Your task to perform on an android device: Clear the shopping cart on bestbuy. Add "razer blackwidow" to the cart on bestbuy Image 0: 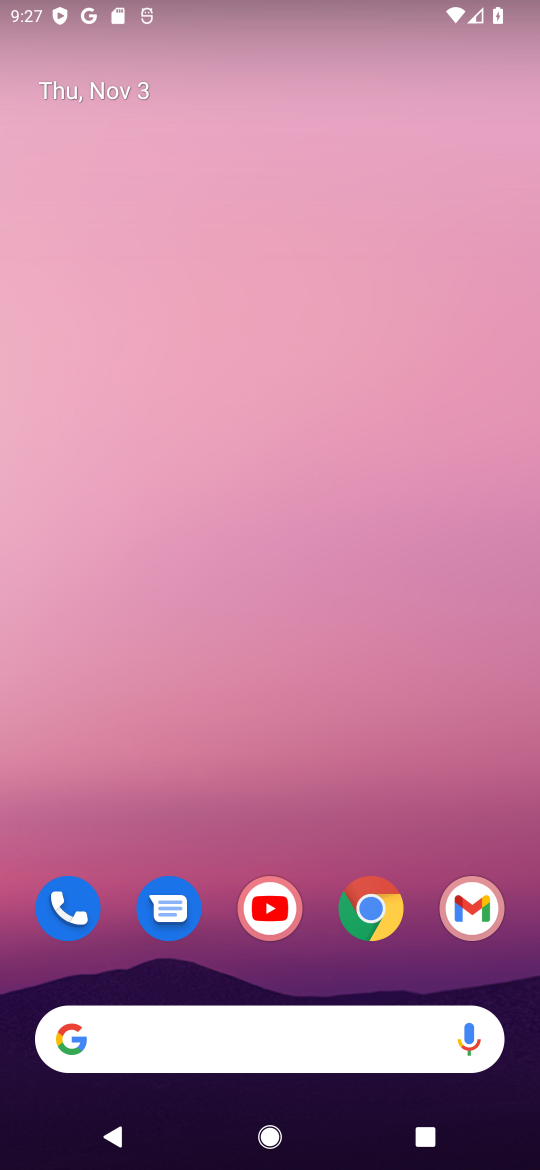
Step 0: click (387, 918)
Your task to perform on an android device: Clear the shopping cart on bestbuy. Add "razer blackwidow" to the cart on bestbuy Image 1: 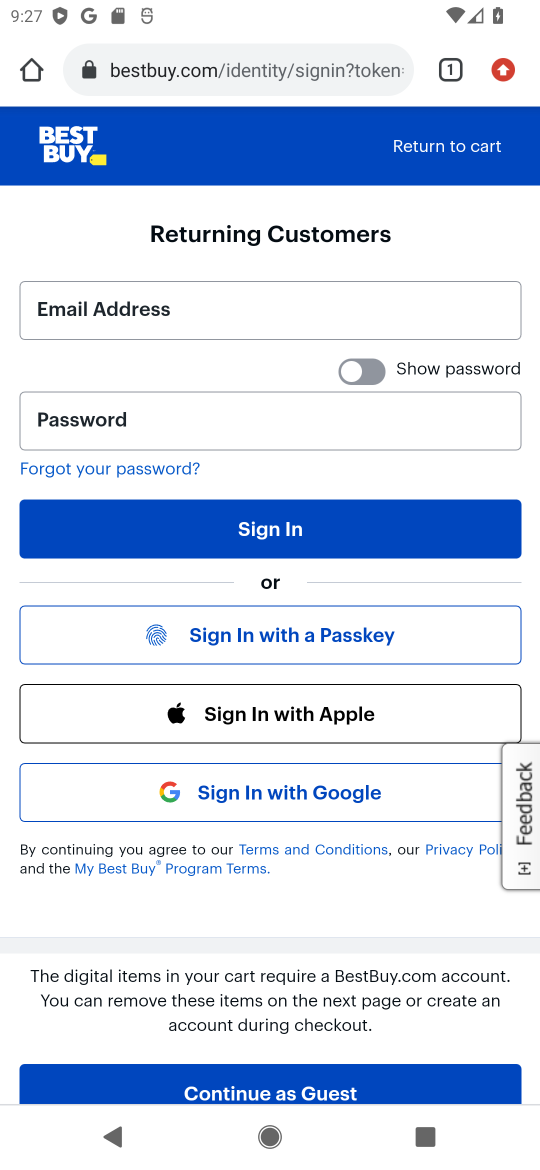
Step 1: drag from (365, 254) to (402, 978)
Your task to perform on an android device: Clear the shopping cart on bestbuy. Add "razer blackwidow" to the cart on bestbuy Image 2: 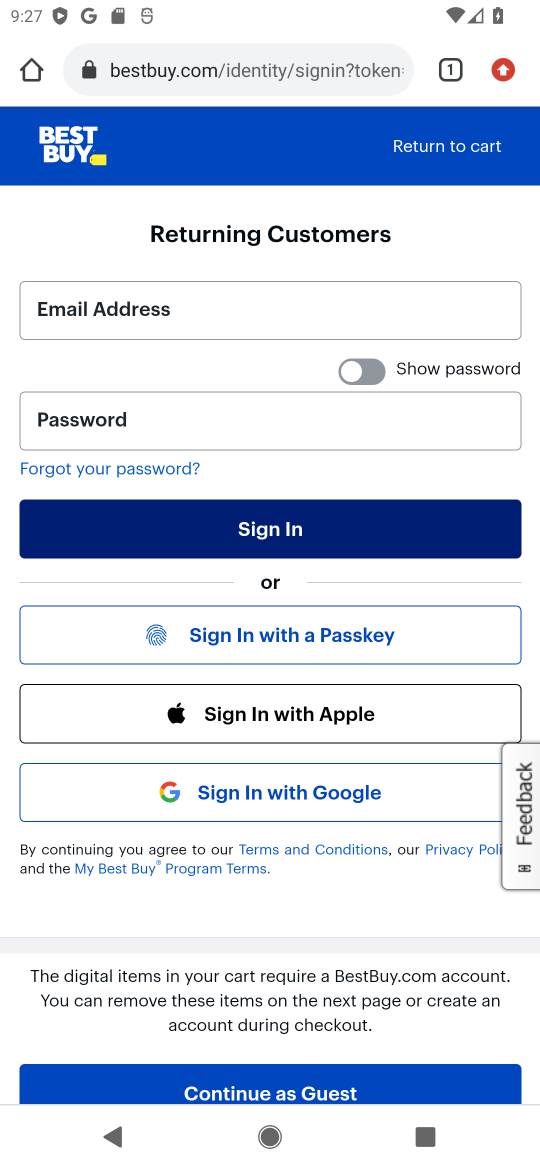
Step 2: drag from (314, 210) to (322, 906)
Your task to perform on an android device: Clear the shopping cart on bestbuy. Add "razer blackwidow" to the cart on bestbuy Image 3: 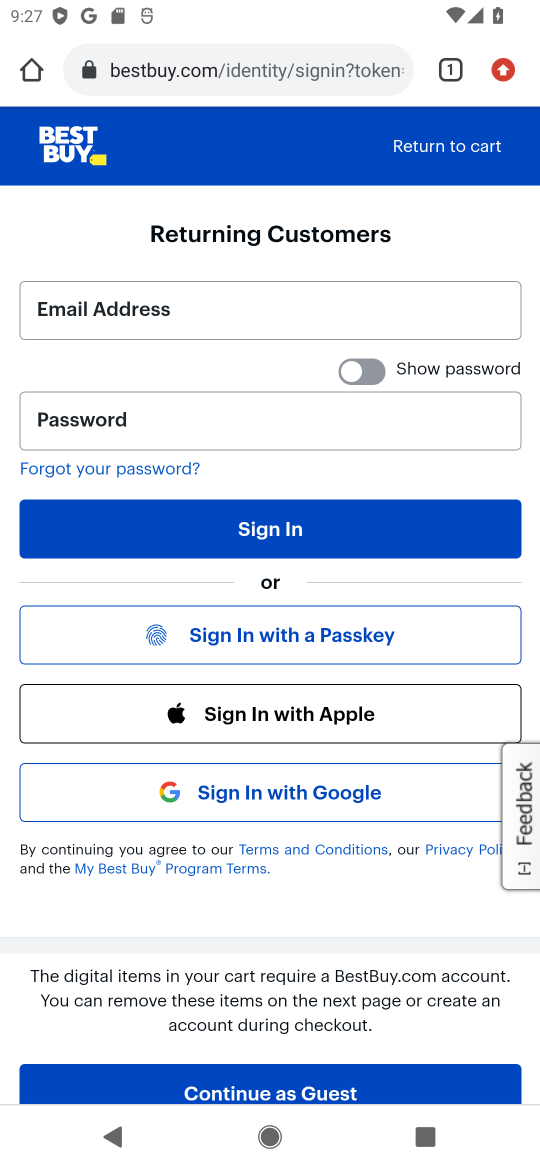
Step 3: press back button
Your task to perform on an android device: Clear the shopping cart on bestbuy. Add "razer blackwidow" to the cart on bestbuy Image 4: 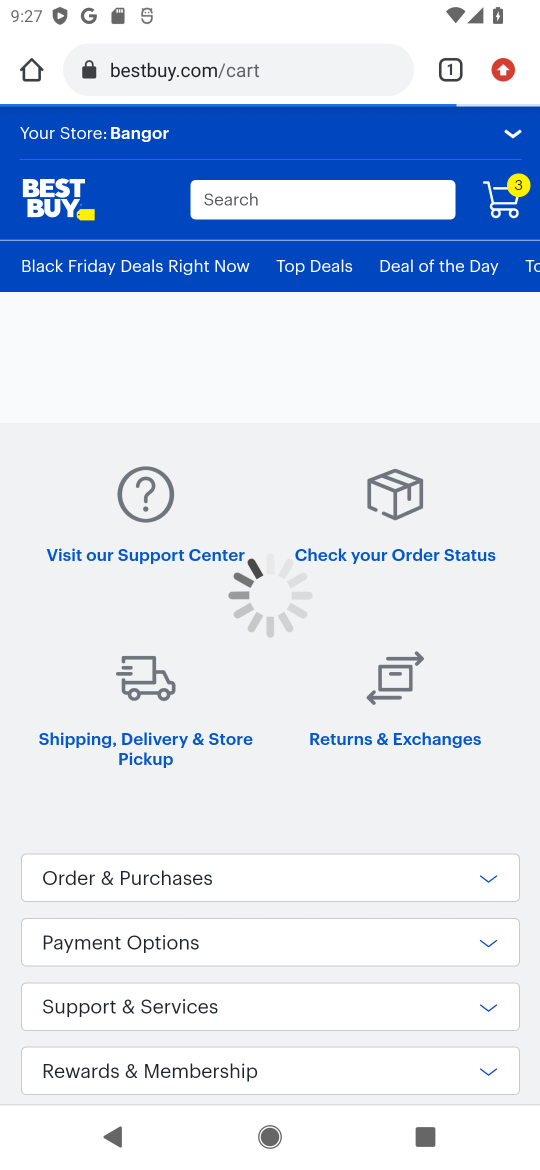
Step 4: click (343, 188)
Your task to perform on an android device: Clear the shopping cart on bestbuy. Add "razer blackwidow" to the cart on bestbuy Image 5: 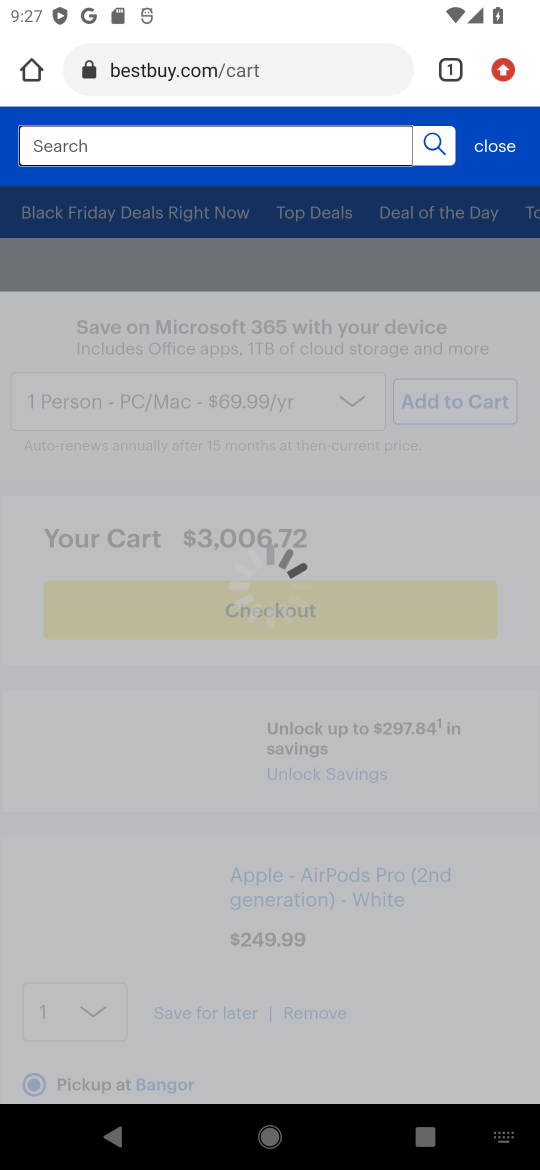
Step 5: click (517, 150)
Your task to perform on an android device: Clear the shopping cart on bestbuy. Add "razer blackwidow" to the cart on bestbuy Image 6: 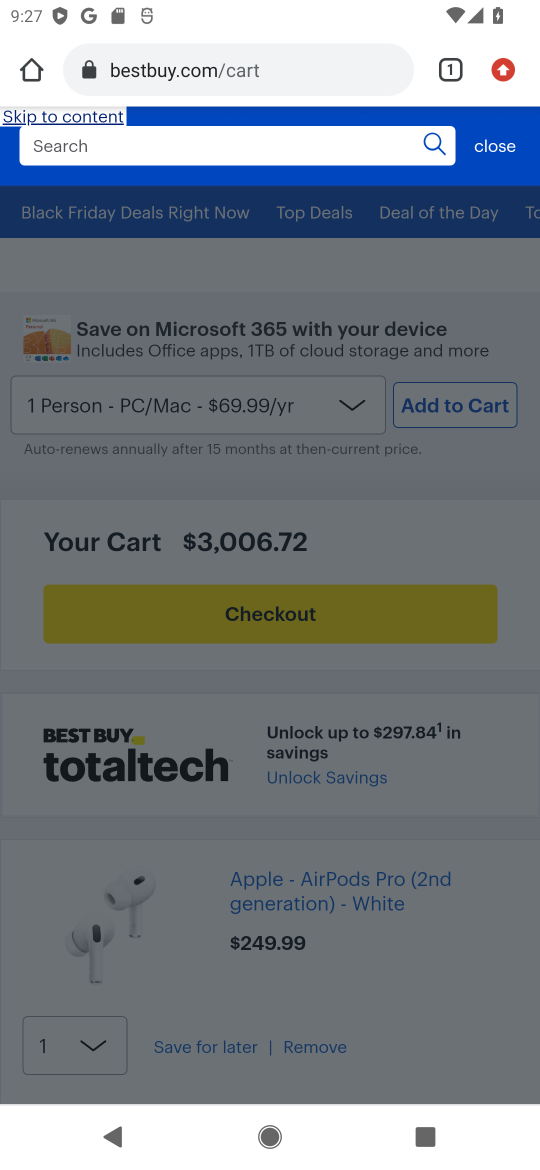
Step 6: click (492, 152)
Your task to perform on an android device: Clear the shopping cart on bestbuy. Add "razer blackwidow" to the cart on bestbuy Image 7: 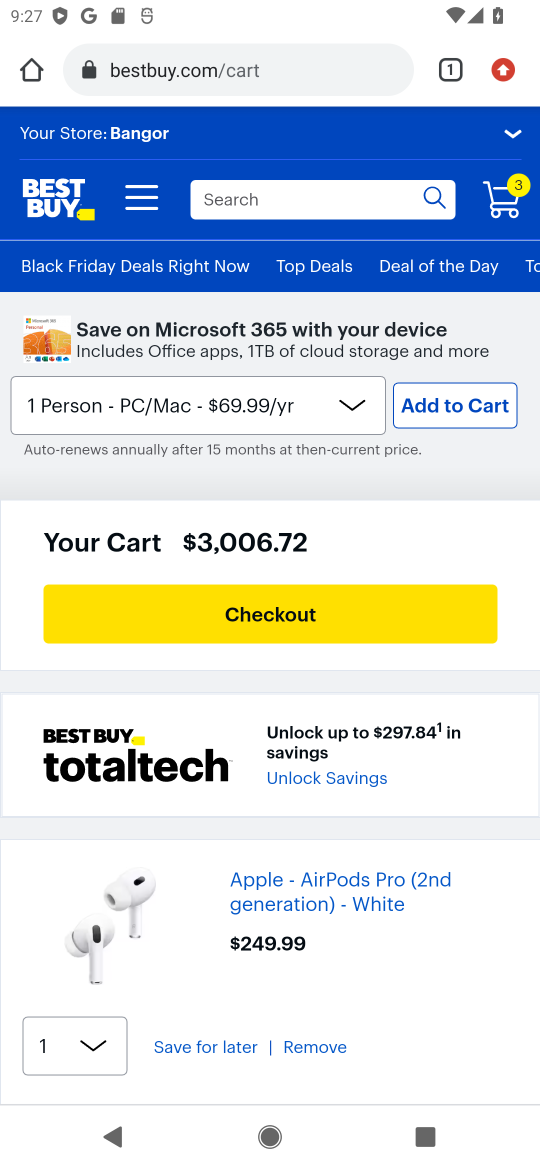
Step 7: click (506, 194)
Your task to perform on an android device: Clear the shopping cart on bestbuy. Add "razer blackwidow" to the cart on bestbuy Image 8: 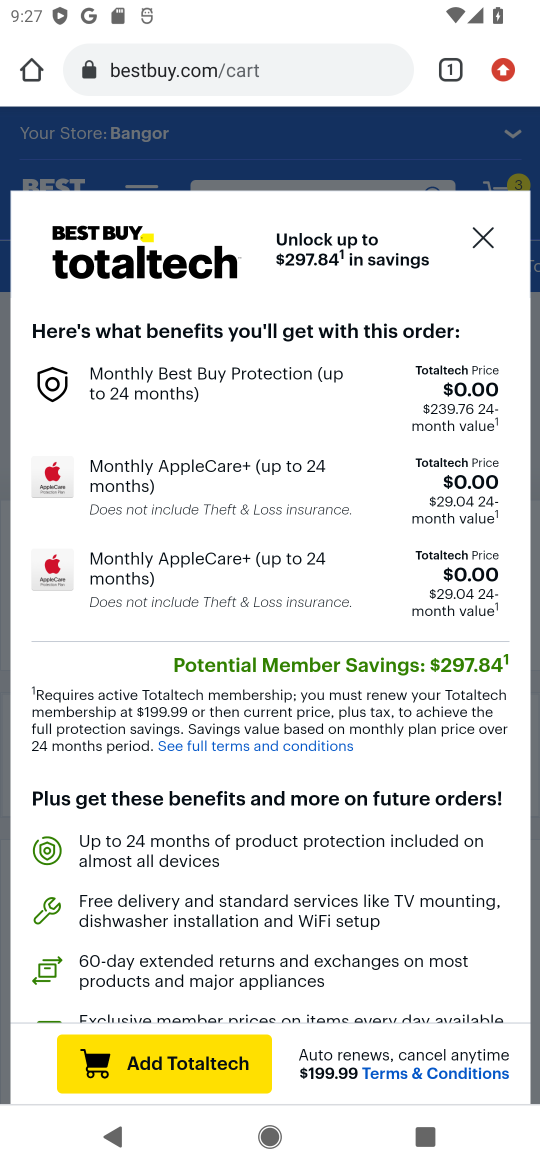
Step 8: click (486, 237)
Your task to perform on an android device: Clear the shopping cart on bestbuy. Add "razer blackwidow" to the cart on bestbuy Image 9: 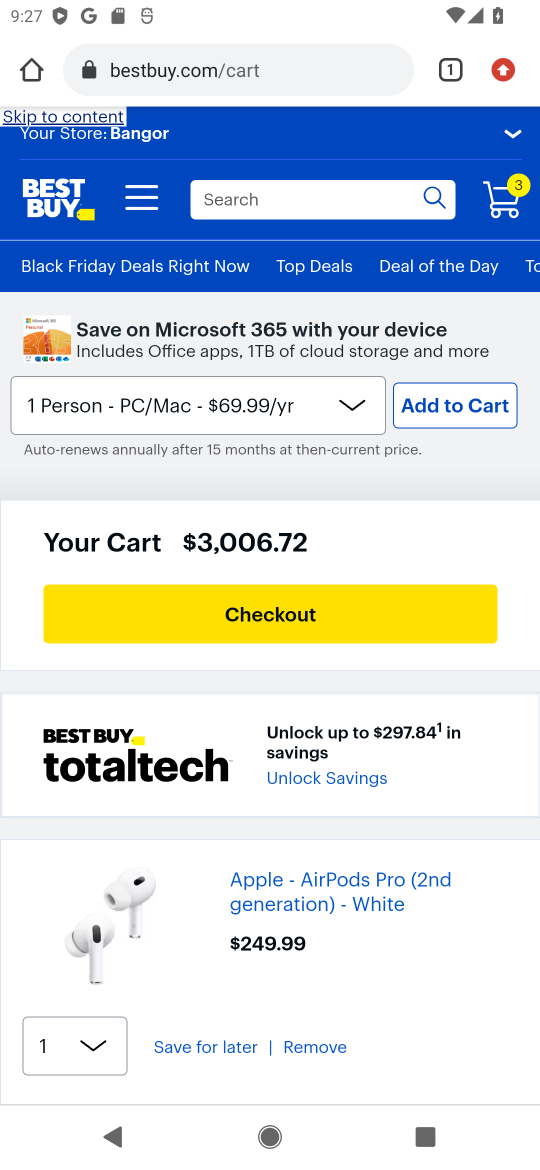
Step 9: drag from (426, 828) to (350, 302)
Your task to perform on an android device: Clear the shopping cart on bestbuy. Add "razer blackwidow" to the cart on bestbuy Image 10: 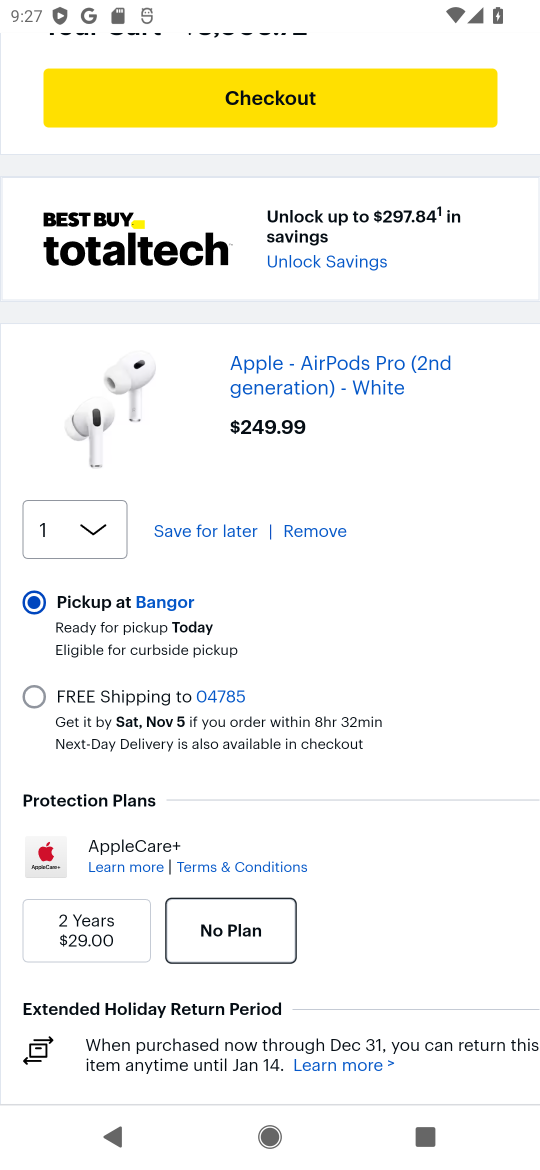
Step 10: click (295, 526)
Your task to perform on an android device: Clear the shopping cart on bestbuy. Add "razer blackwidow" to the cart on bestbuy Image 11: 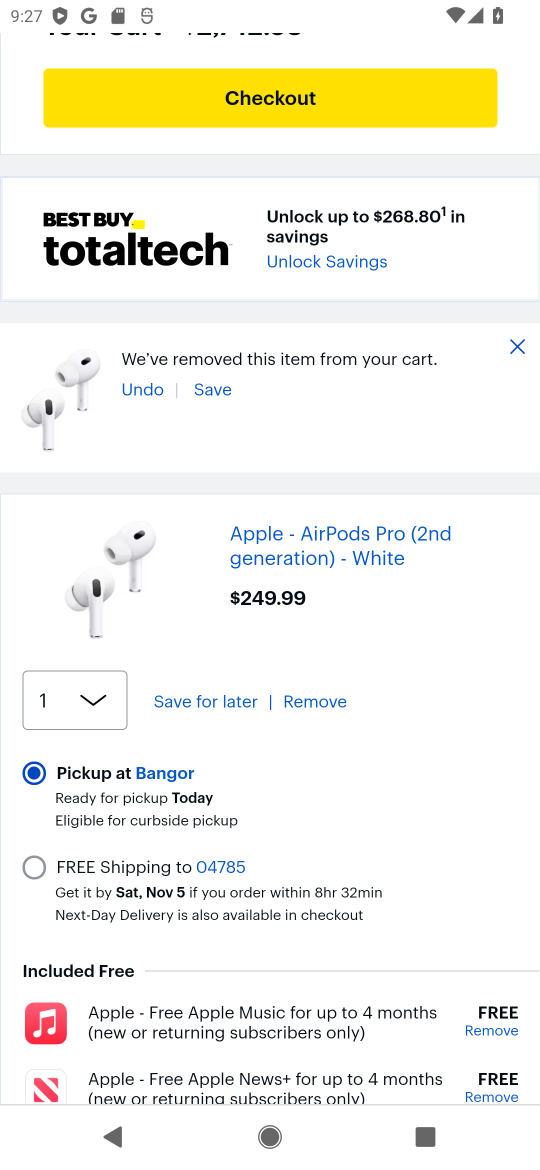
Step 11: click (326, 698)
Your task to perform on an android device: Clear the shopping cart on bestbuy. Add "razer blackwidow" to the cart on bestbuy Image 12: 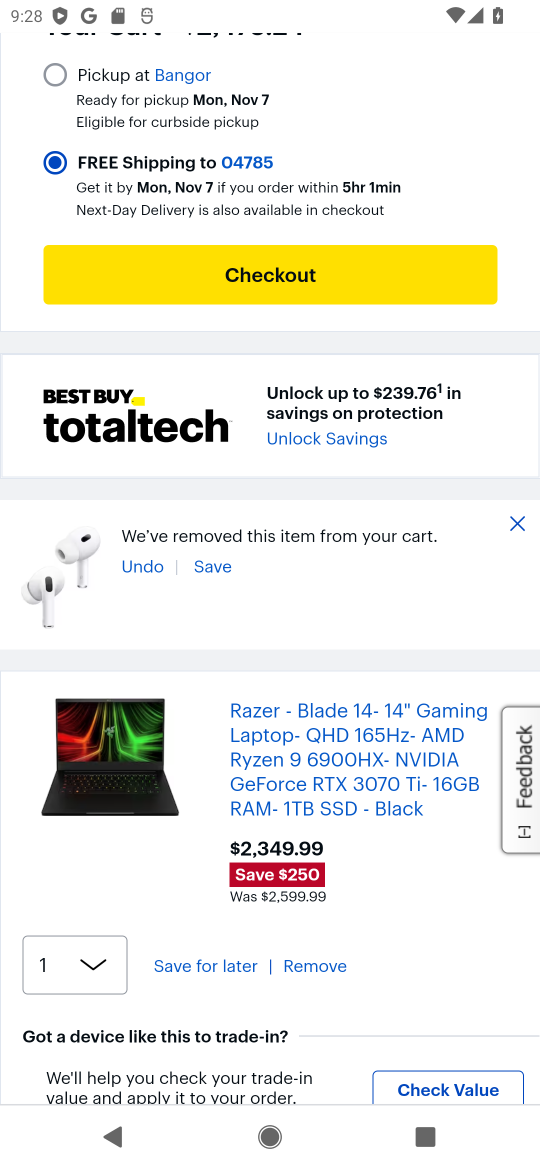
Step 12: click (328, 963)
Your task to perform on an android device: Clear the shopping cart on bestbuy. Add "razer blackwidow" to the cart on bestbuy Image 13: 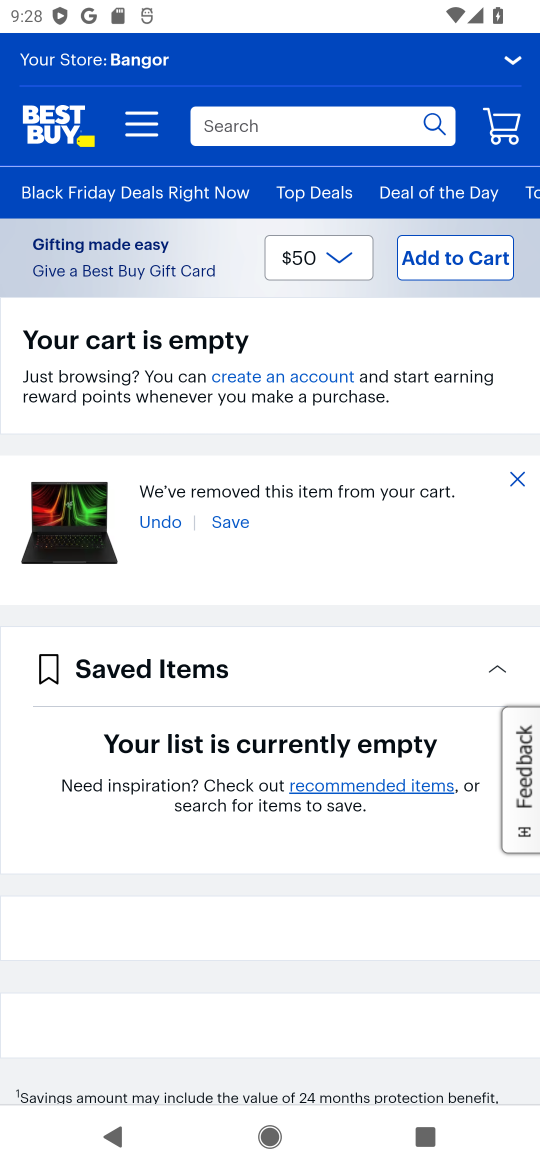
Step 13: click (518, 470)
Your task to perform on an android device: Clear the shopping cart on bestbuy. Add "razer blackwidow" to the cart on bestbuy Image 14: 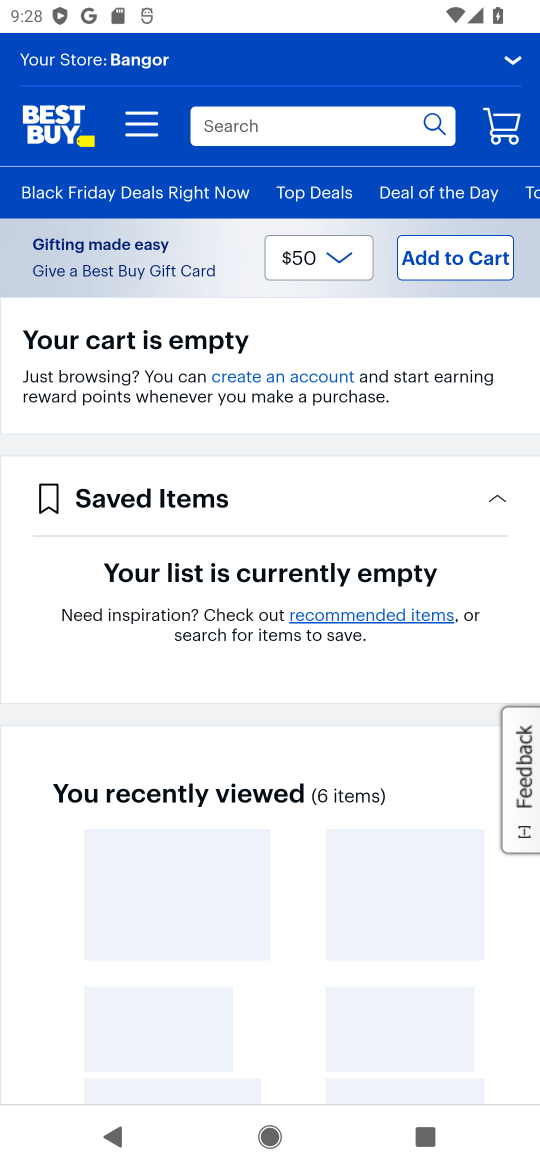
Step 14: click (315, 120)
Your task to perform on an android device: Clear the shopping cart on bestbuy. Add "razer blackwidow" to the cart on bestbuy Image 15: 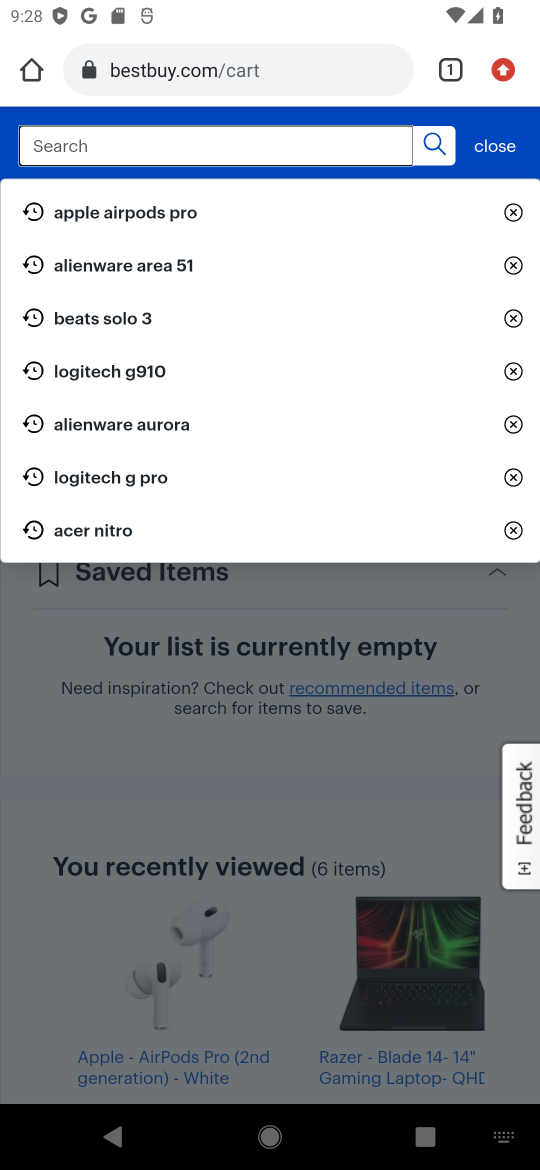
Step 15: click (331, 135)
Your task to perform on an android device: Clear the shopping cart on bestbuy. Add "razer blackwidow" to the cart on bestbuy Image 16: 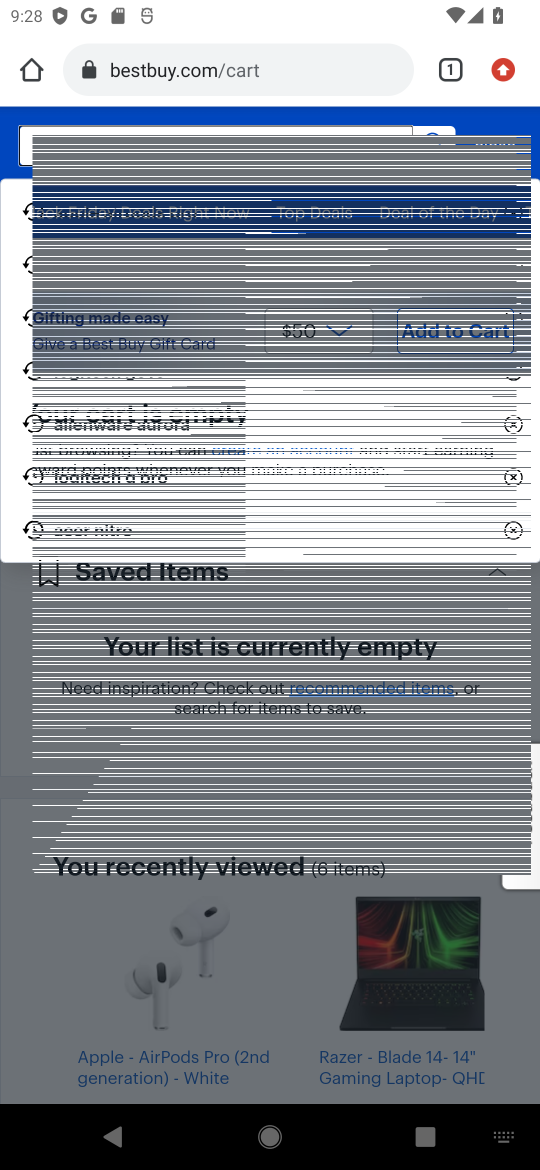
Step 16: press enter
Your task to perform on an android device: Clear the shopping cart on bestbuy. Add "razer blackwidow" to the cart on bestbuy Image 17: 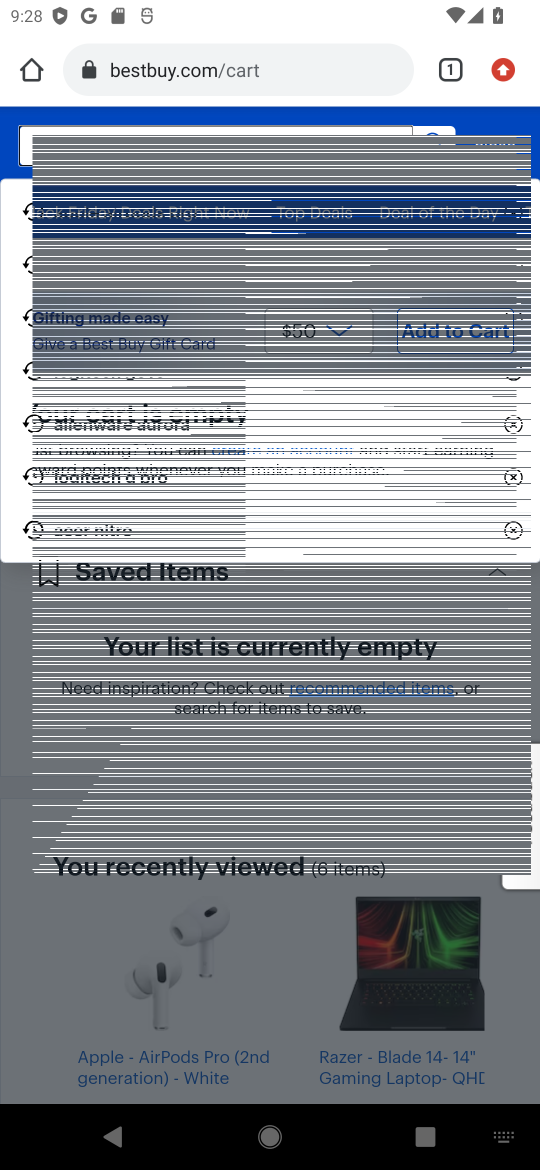
Step 17: type "razer blackwidow"
Your task to perform on an android device: Clear the shopping cart on bestbuy. Add "razer blackwidow" to the cart on bestbuy Image 18: 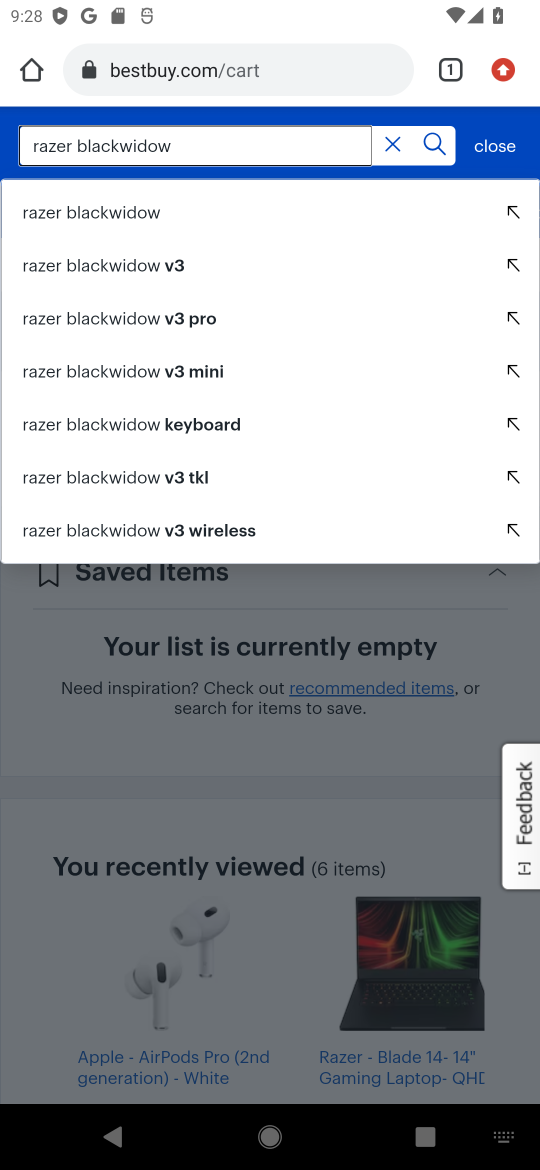
Step 18: click (147, 205)
Your task to perform on an android device: Clear the shopping cart on bestbuy. Add "razer blackwidow" to the cart on bestbuy Image 19: 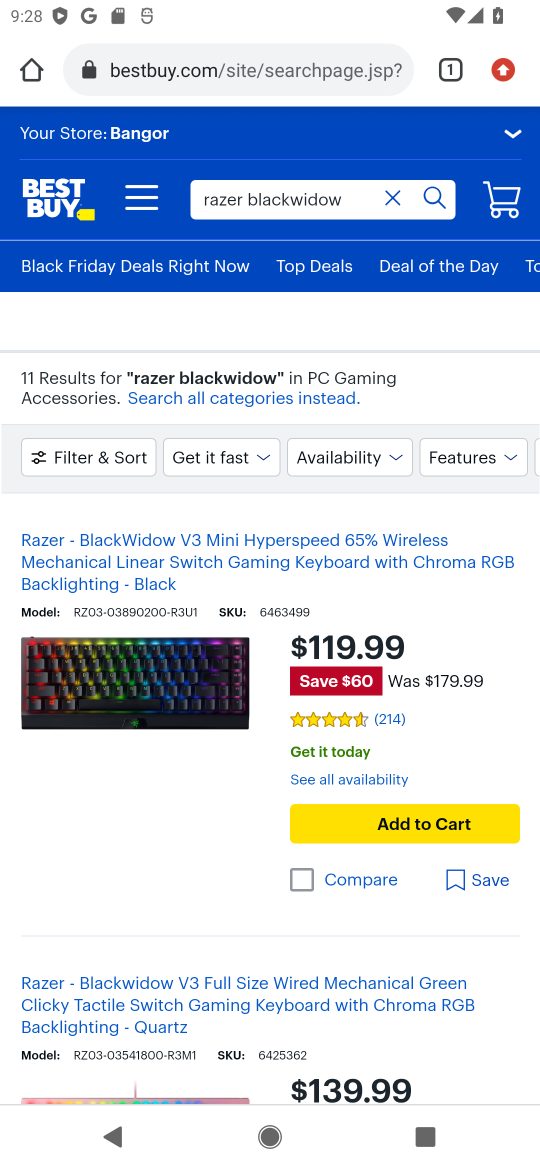
Step 19: click (170, 695)
Your task to perform on an android device: Clear the shopping cart on bestbuy. Add "razer blackwidow" to the cart on bestbuy Image 20: 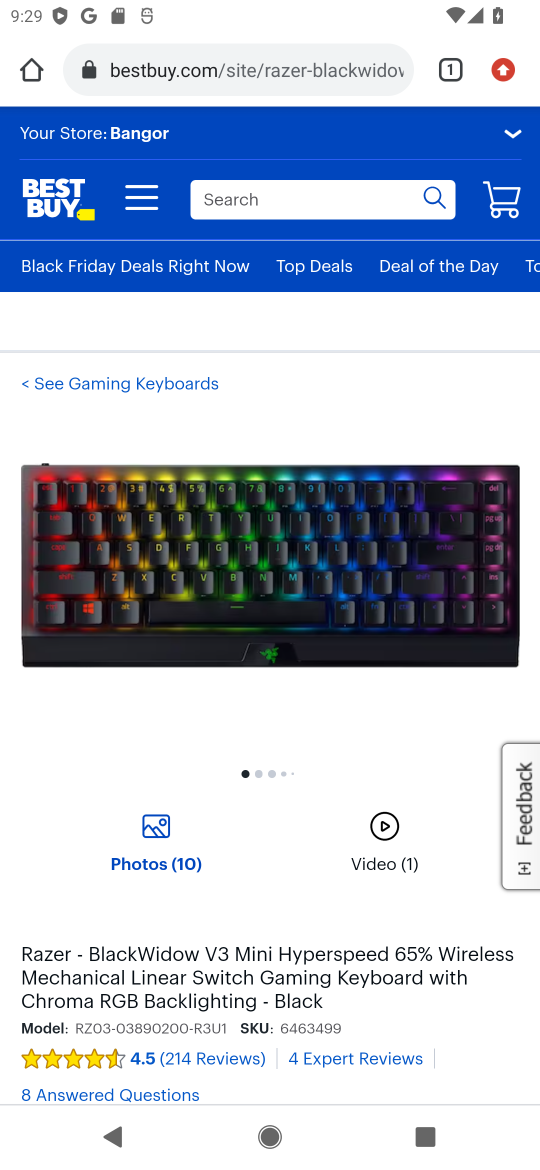
Step 20: drag from (312, 705) to (305, 241)
Your task to perform on an android device: Clear the shopping cart on bestbuy. Add "razer blackwidow" to the cart on bestbuy Image 21: 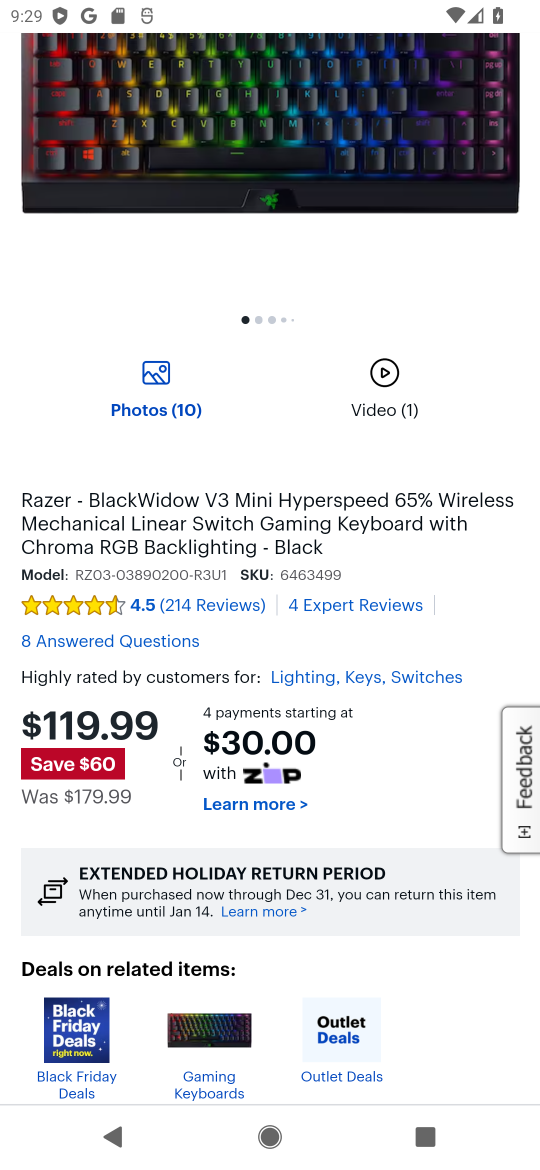
Step 21: drag from (302, 762) to (337, 358)
Your task to perform on an android device: Clear the shopping cart on bestbuy. Add "razer blackwidow" to the cart on bestbuy Image 22: 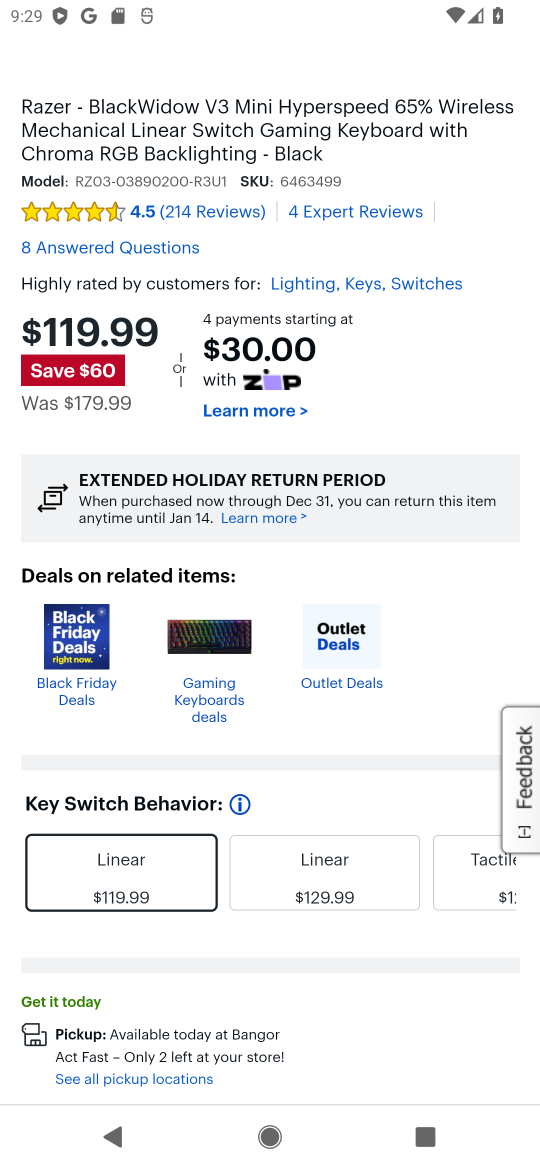
Step 22: drag from (389, 940) to (412, 363)
Your task to perform on an android device: Clear the shopping cart on bestbuy. Add "razer blackwidow" to the cart on bestbuy Image 23: 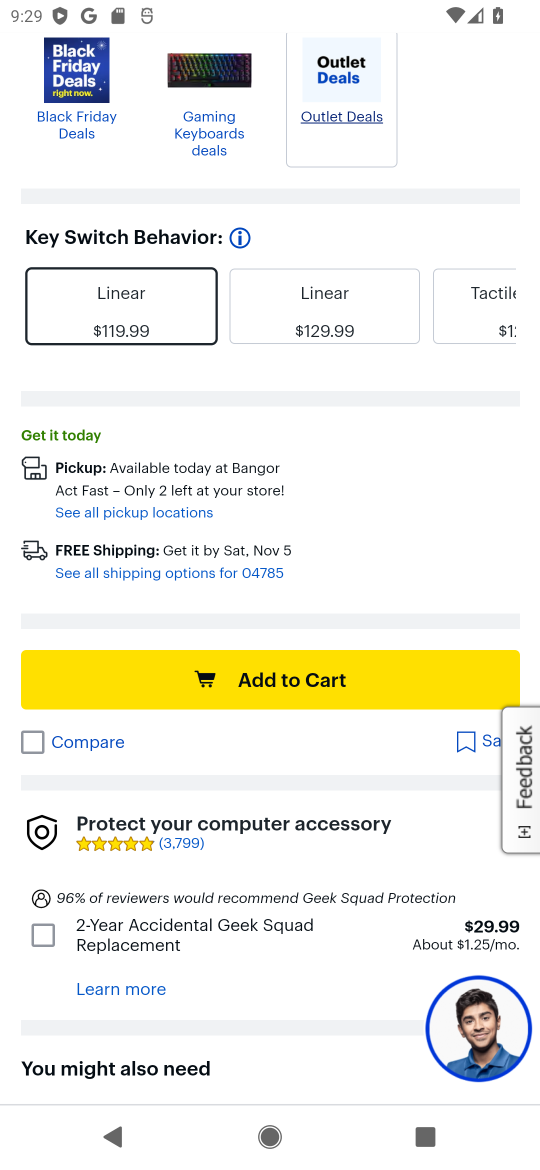
Step 23: click (303, 670)
Your task to perform on an android device: Clear the shopping cart on bestbuy. Add "razer blackwidow" to the cart on bestbuy Image 24: 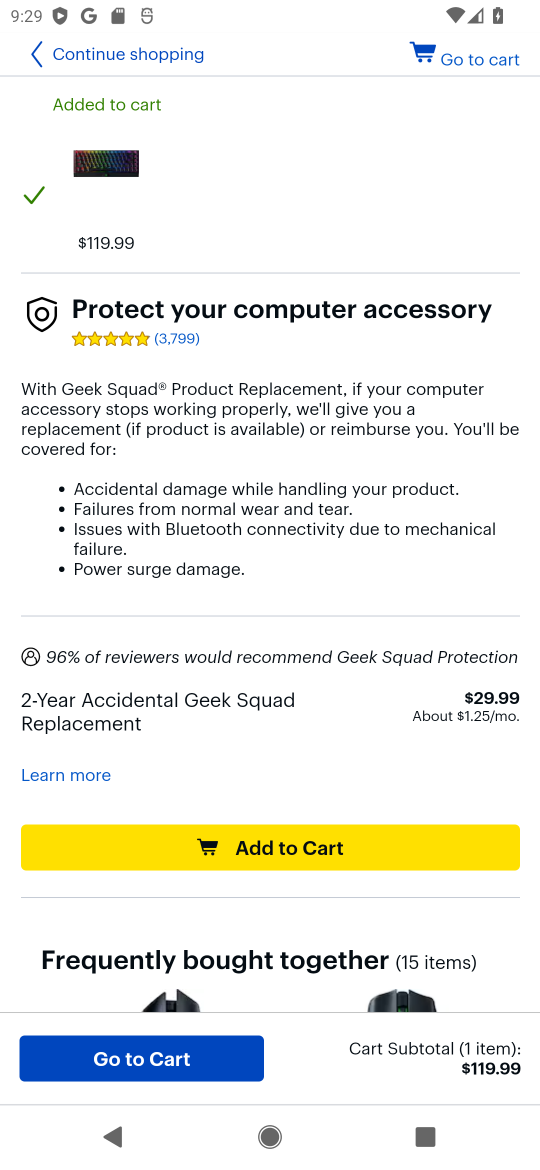
Step 24: click (332, 850)
Your task to perform on an android device: Clear the shopping cart on bestbuy. Add "razer blackwidow" to the cart on bestbuy Image 25: 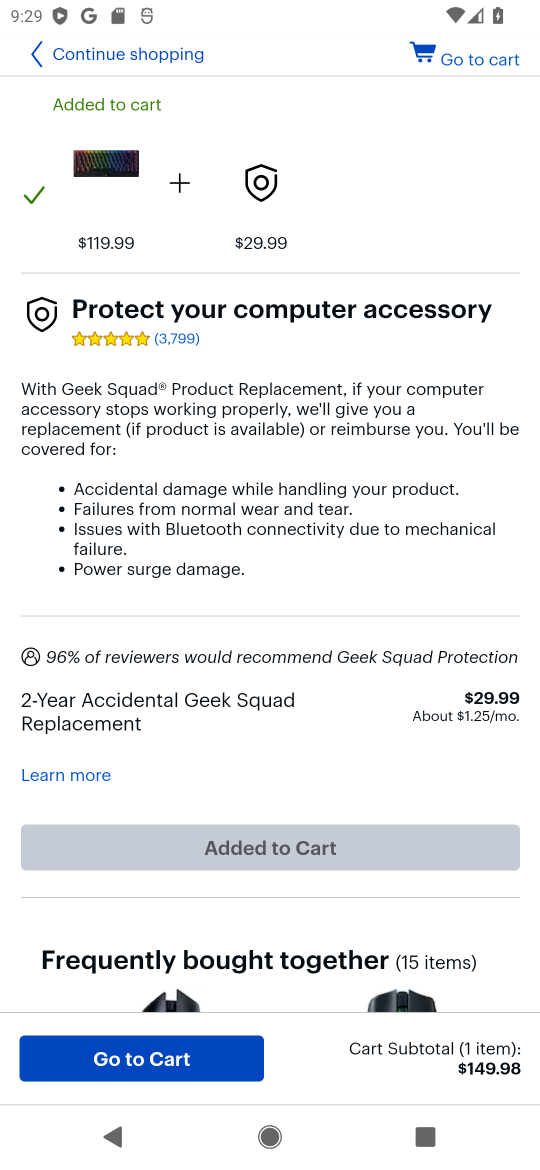
Step 25: task complete